Your task to perform on an android device: Show the shopping cart on newegg. Image 0: 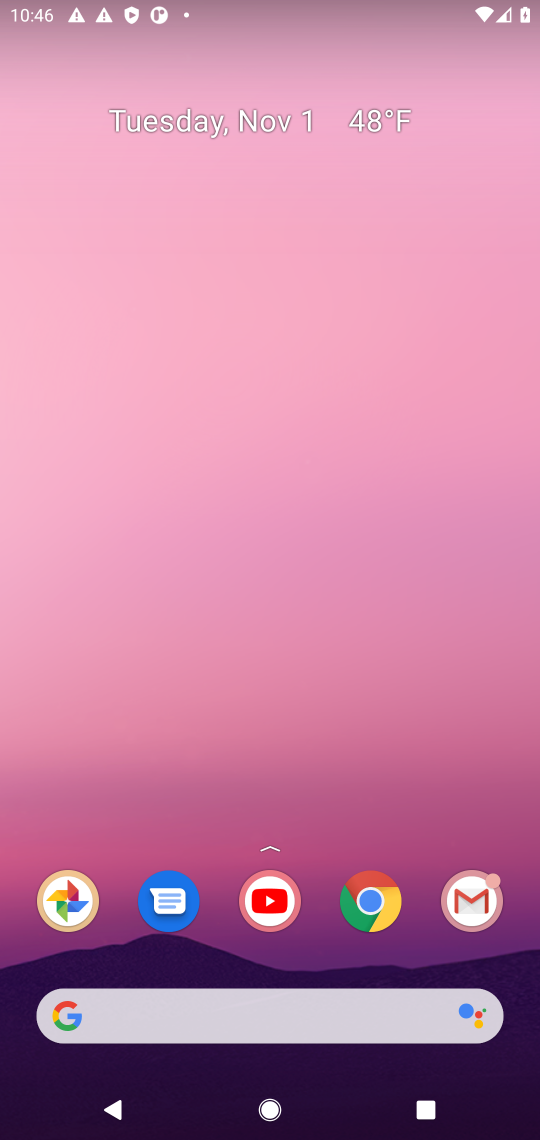
Step 0: drag from (309, 966) to (316, 115)
Your task to perform on an android device: Show the shopping cart on newegg. Image 1: 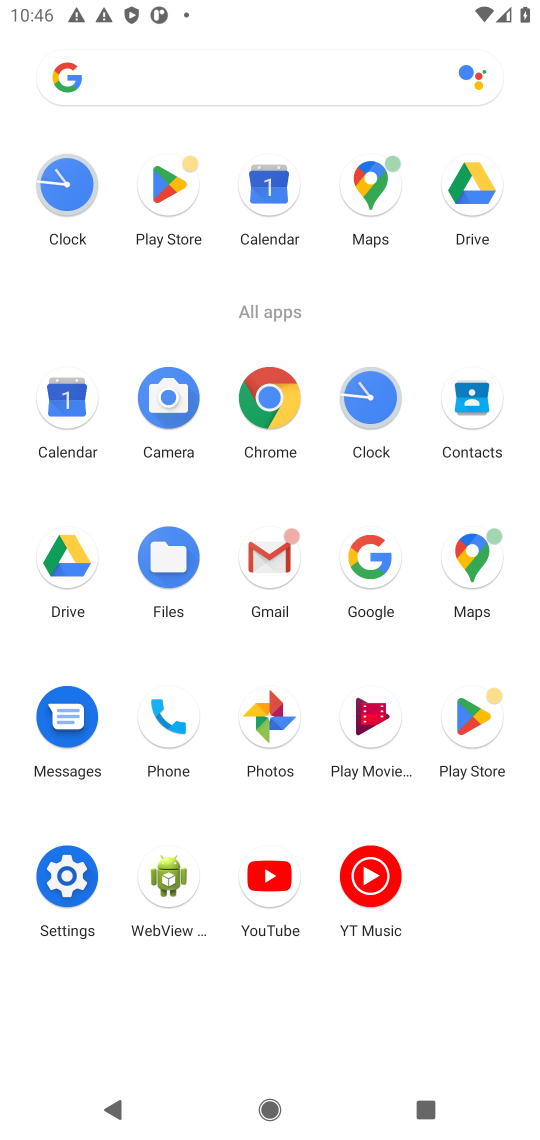
Step 1: click (277, 404)
Your task to perform on an android device: Show the shopping cart on newegg. Image 2: 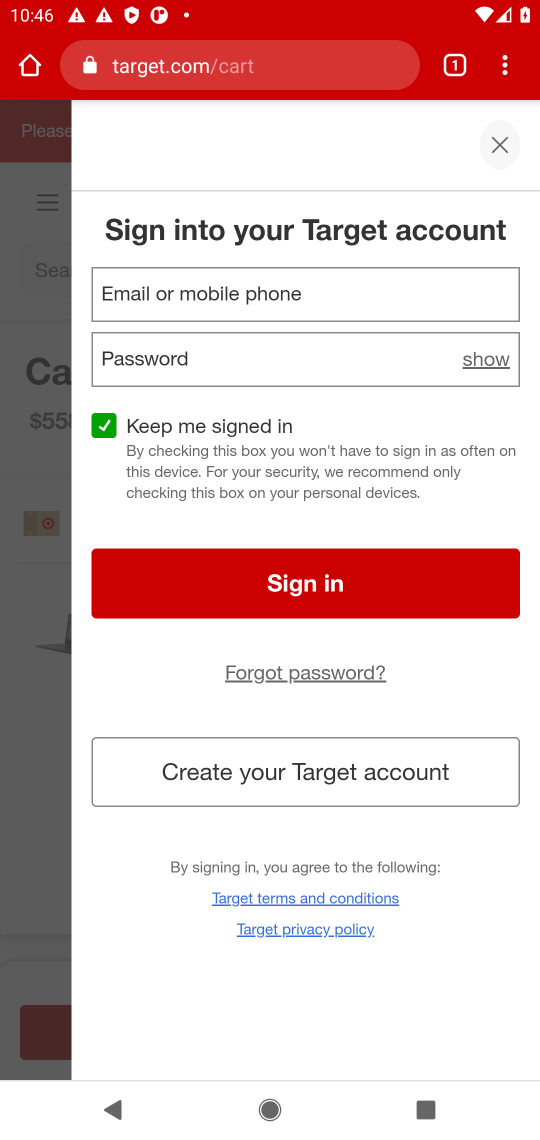
Step 2: click (283, 77)
Your task to perform on an android device: Show the shopping cart on newegg. Image 3: 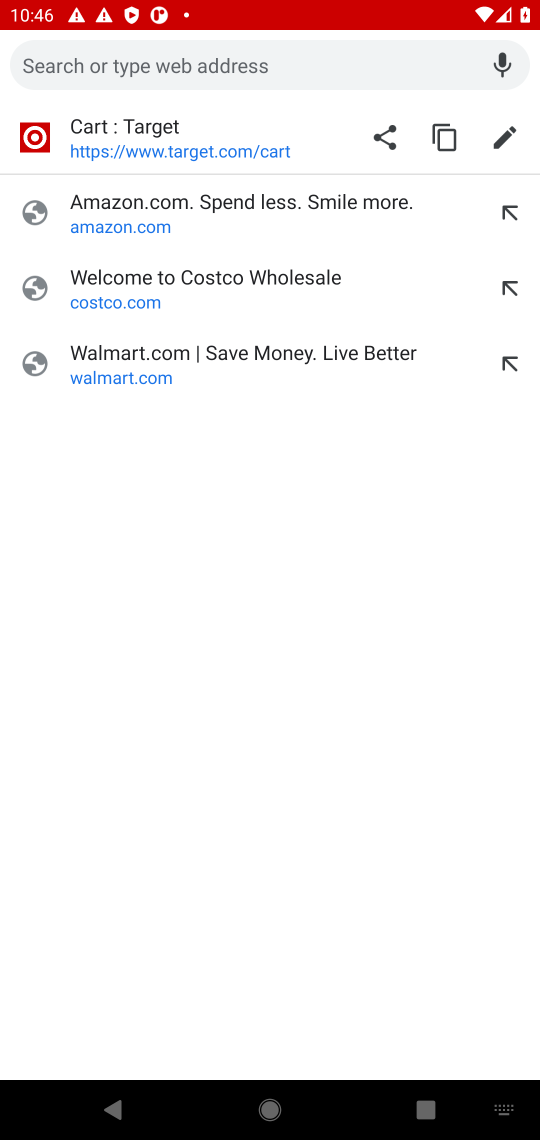
Step 3: type "newegg.com"
Your task to perform on an android device: Show the shopping cart on newegg. Image 4: 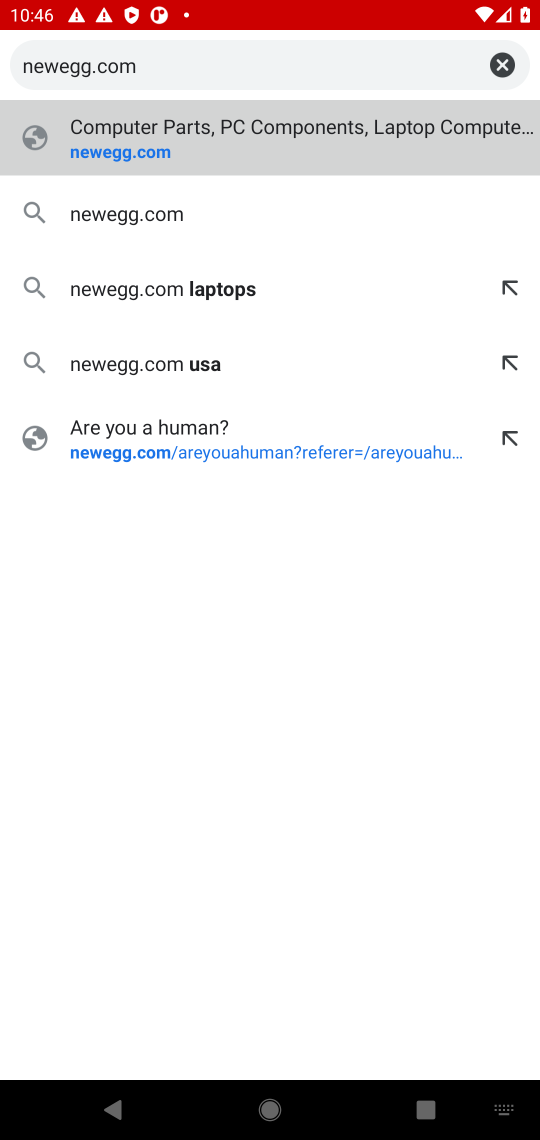
Step 4: press enter
Your task to perform on an android device: Show the shopping cart on newegg. Image 5: 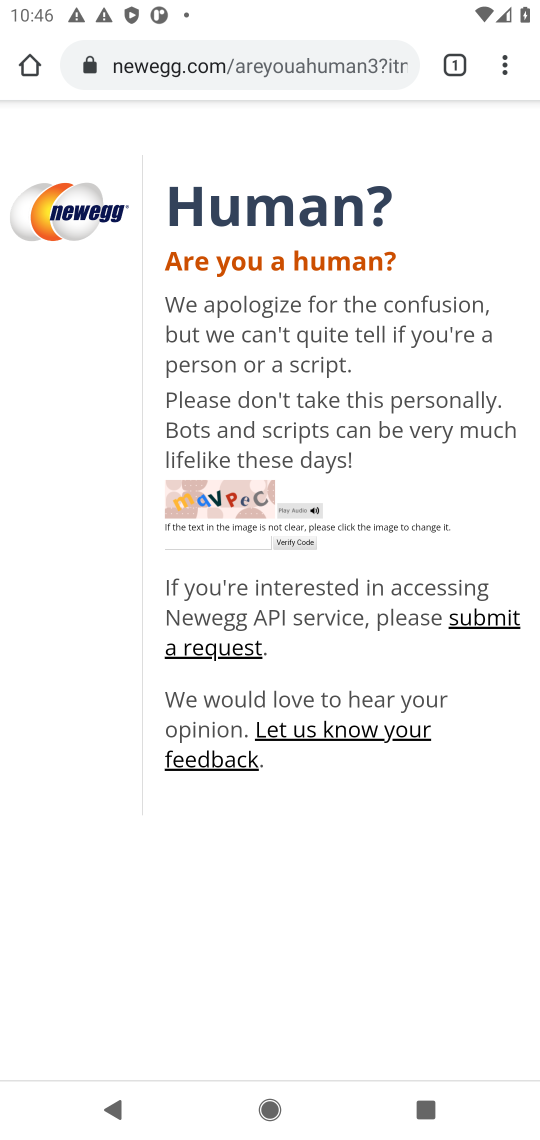
Step 5: click (212, 543)
Your task to perform on an android device: Show the shopping cart on newegg. Image 6: 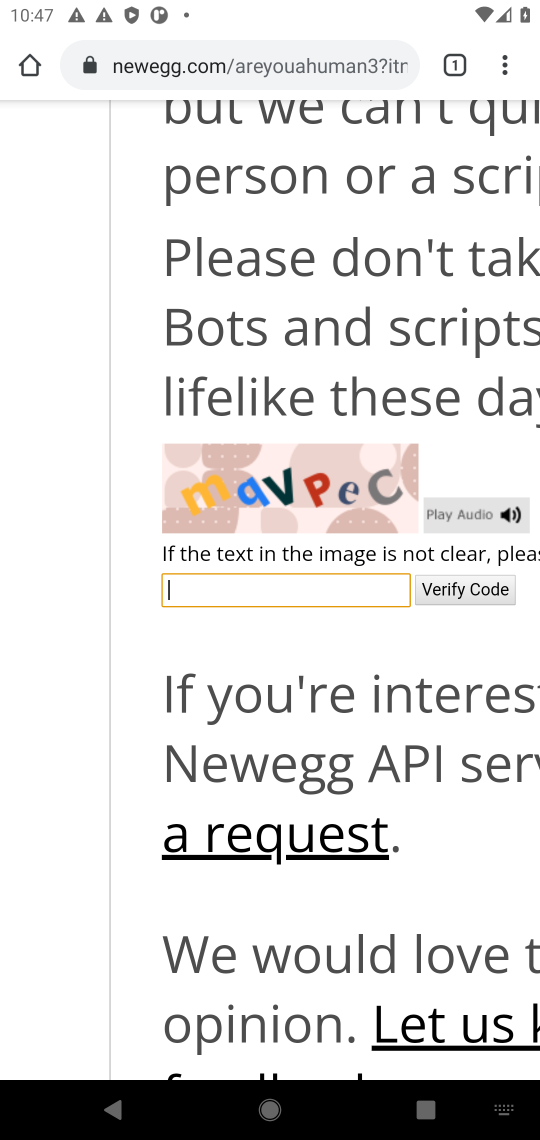
Step 6: type "mqVPeC"
Your task to perform on an android device: Show the shopping cart on newegg. Image 7: 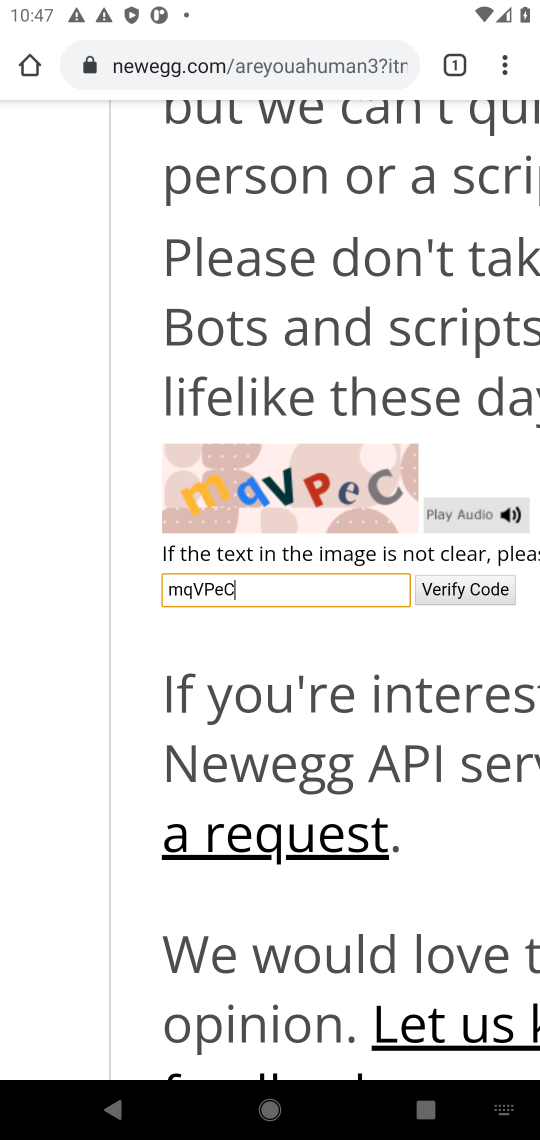
Step 7: type ""
Your task to perform on an android device: Show the shopping cart on newegg. Image 8: 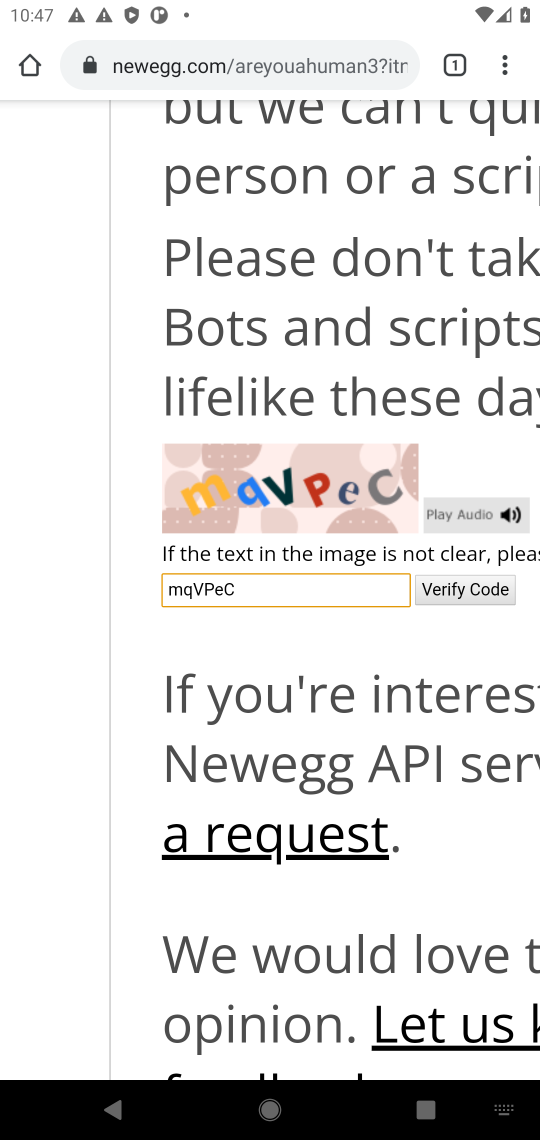
Step 8: click (493, 596)
Your task to perform on an android device: Show the shopping cart on newegg. Image 9: 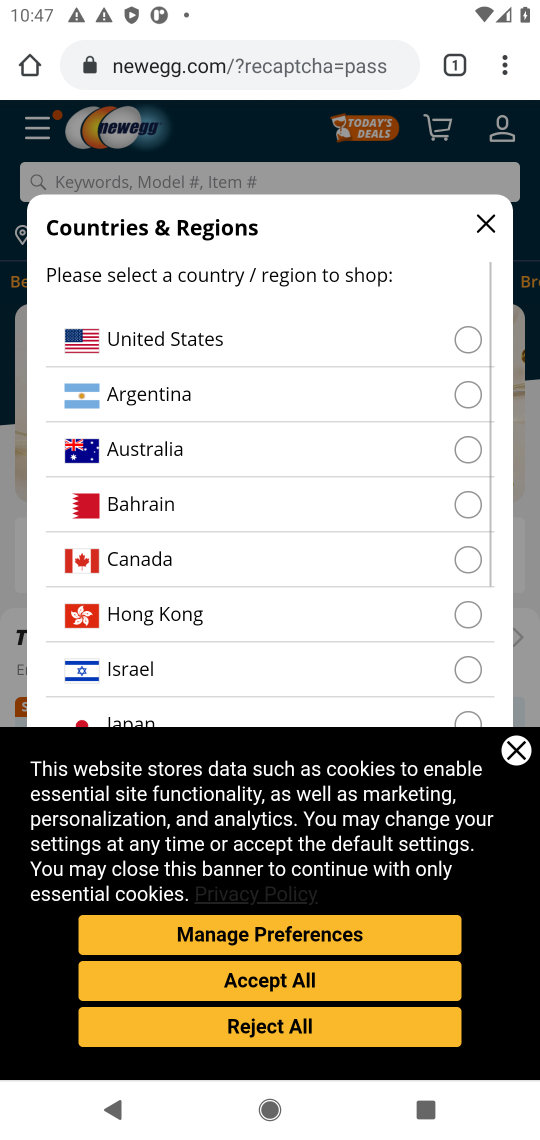
Step 9: click (488, 227)
Your task to perform on an android device: Show the shopping cart on newegg. Image 10: 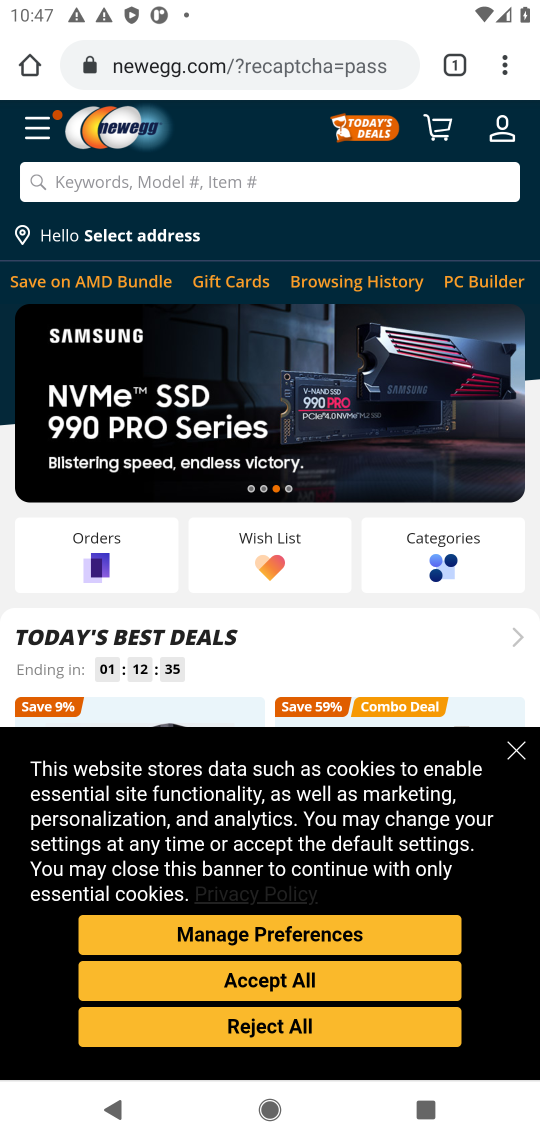
Step 10: click (444, 120)
Your task to perform on an android device: Show the shopping cart on newegg. Image 11: 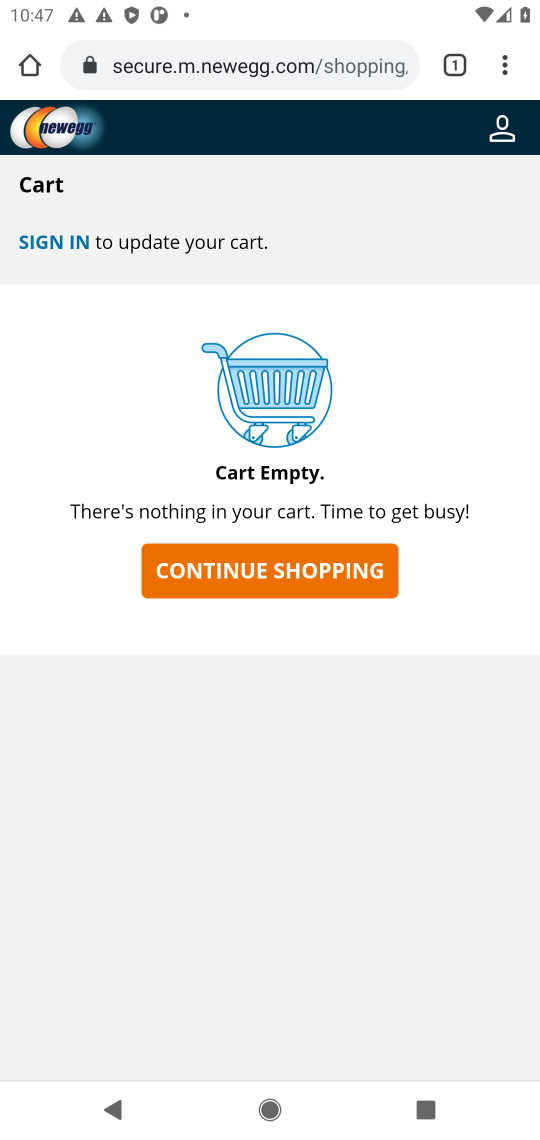
Step 11: task complete